Your task to perform on an android device: turn off priority inbox in the gmail app Image 0: 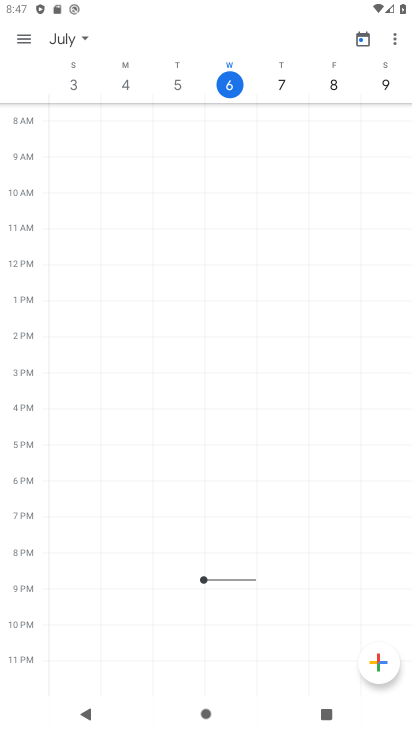
Step 0: press home button
Your task to perform on an android device: turn off priority inbox in the gmail app Image 1: 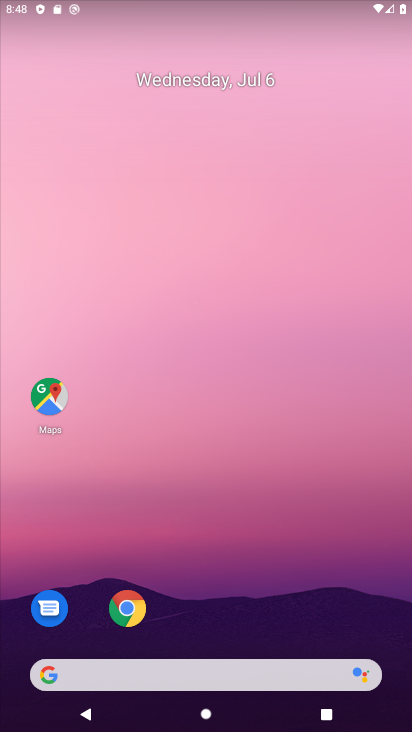
Step 1: drag from (246, 634) to (166, 146)
Your task to perform on an android device: turn off priority inbox in the gmail app Image 2: 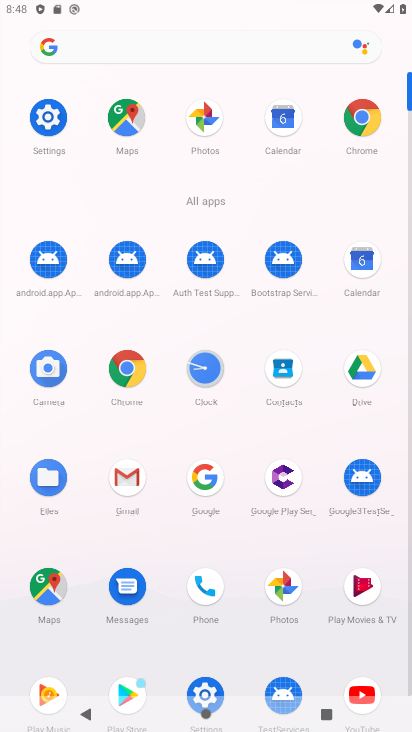
Step 2: click (131, 477)
Your task to perform on an android device: turn off priority inbox in the gmail app Image 3: 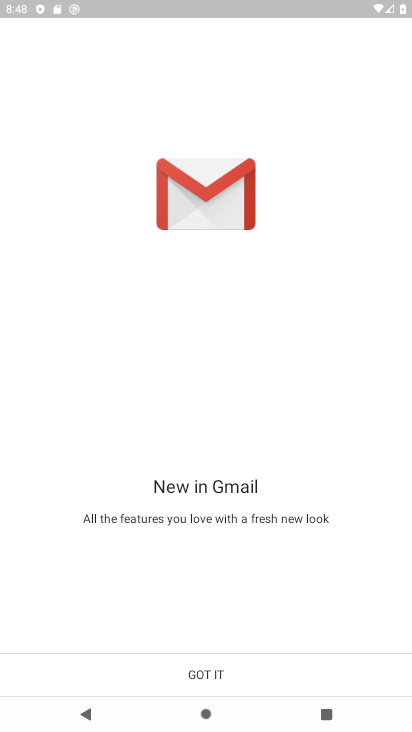
Step 3: click (219, 675)
Your task to perform on an android device: turn off priority inbox in the gmail app Image 4: 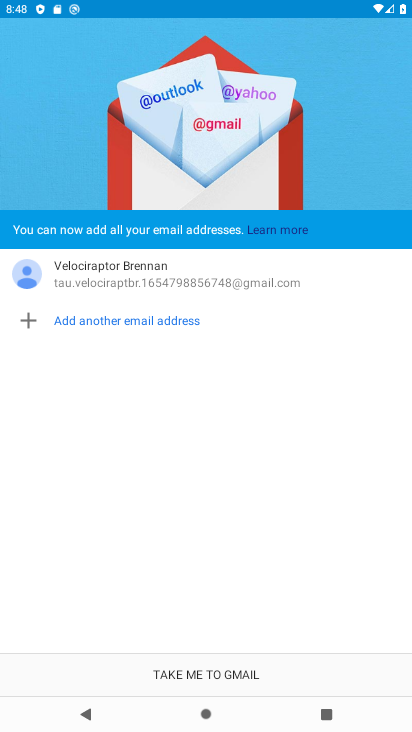
Step 4: click (219, 675)
Your task to perform on an android device: turn off priority inbox in the gmail app Image 5: 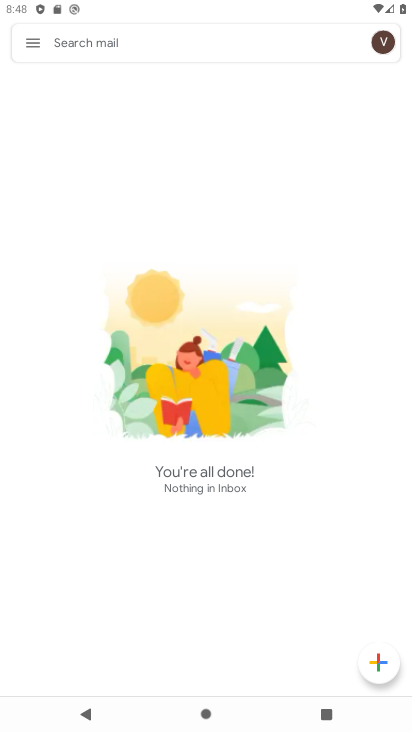
Step 5: click (34, 46)
Your task to perform on an android device: turn off priority inbox in the gmail app Image 6: 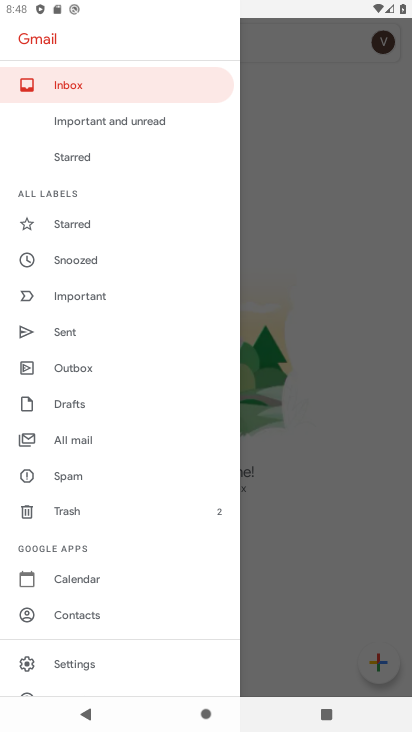
Step 6: click (126, 664)
Your task to perform on an android device: turn off priority inbox in the gmail app Image 7: 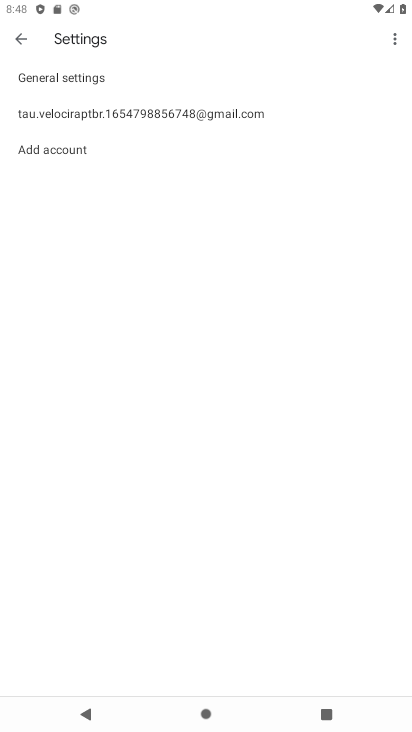
Step 7: click (170, 119)
Your task to perform on an android device: turn off priority inbox in the gmail app Image 8: 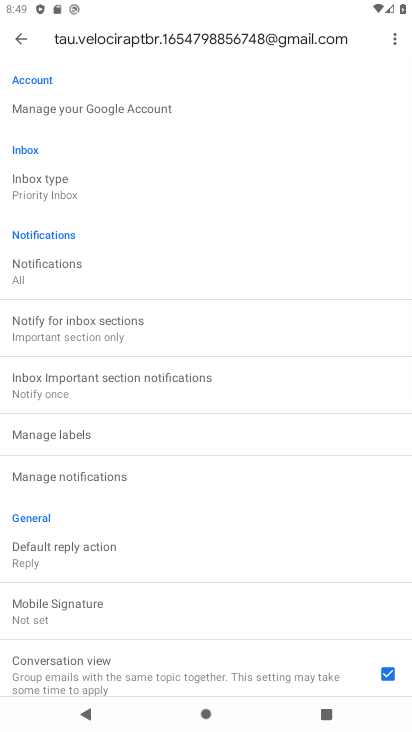
Step 8: click (172, 179)
Your task to perform on an android device: turn off priority inbox in the gmail app Image 9: 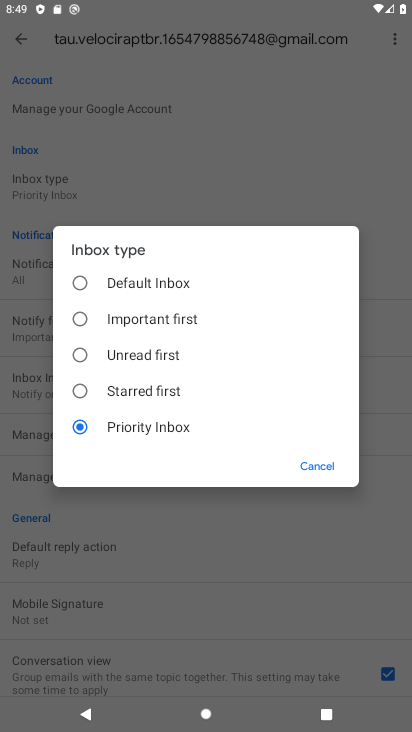
Step 9: click (176, 277)
Your task to perform on an android device: turn off priority inbox in the gmail app Image 10: 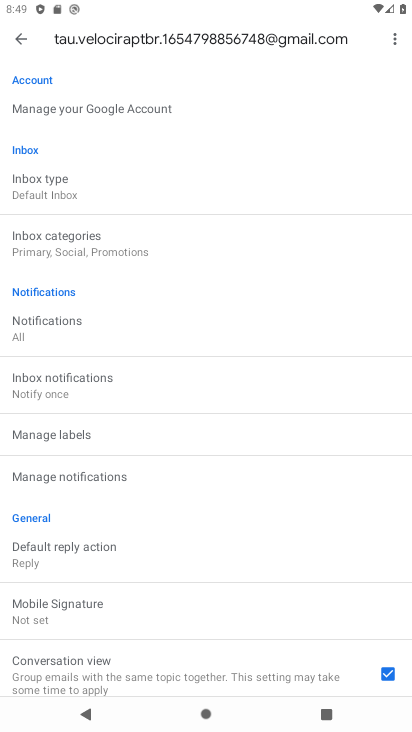
Step 10: task complete